Your task to perform on an android device: Search for Italian restaurants on Maps Image 0: 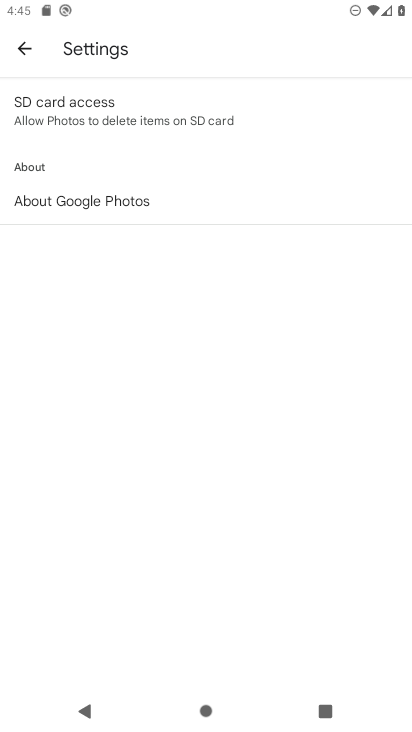
Step 0: press home button
Your task to perform on an android device: Search for Italian restaurants on Maps Image 1: 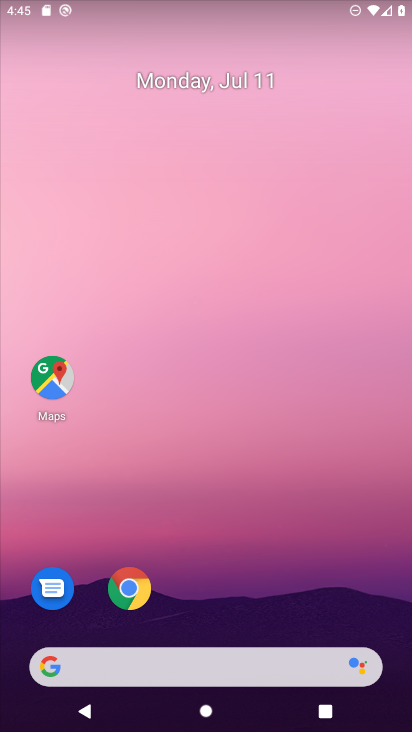
Step 1: drag from (198, 621) to (255, 24)
Your task to perform on an android device: Search for Italian restaurants on Maps Image 2: 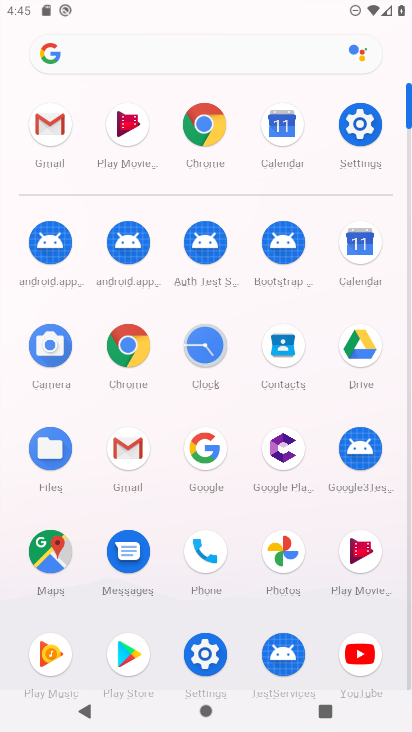
Step 2: click (47, 554)
Your task to perform on an android device: Search for Italian restaurants on Maps Image 3: 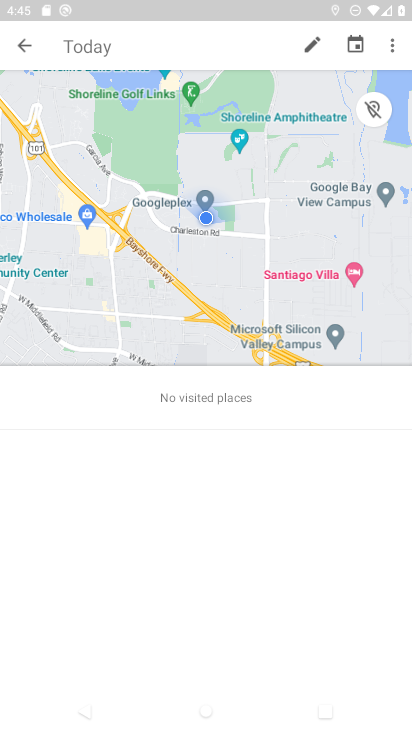
Step 3: click (161, 48)
Your task to perform on an android device: Search for Italian restaurants on Maps Image 4: 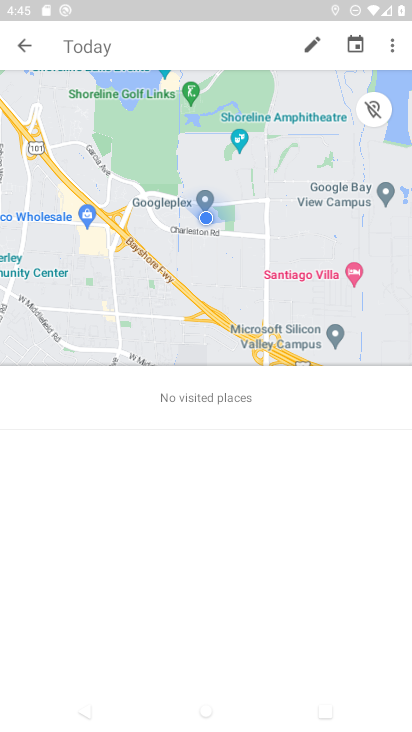
Step 4: click (128, 43)
Your task to perform on an android device: Search for Italian restaurants on Maps Image 5: 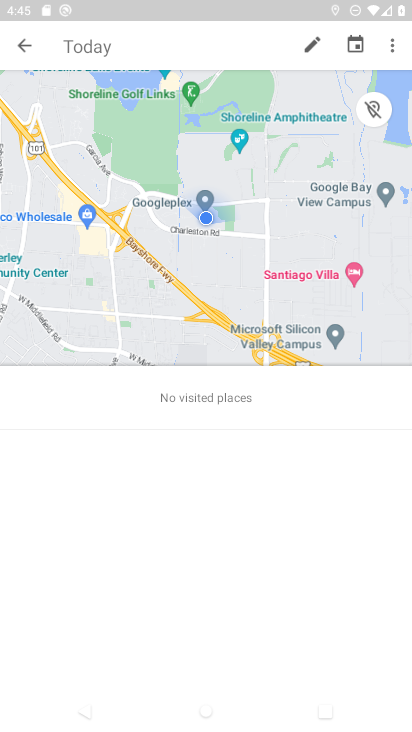
Step 5: click (113, 47)
Your task to perform on an android device: Search for Italian restaurants on Maps Image 6: 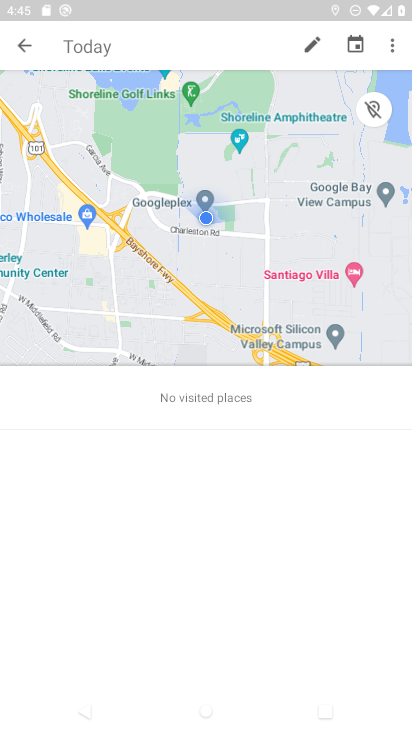
Step 6: press back button
Your task to perform on an android device: Search for Italian restaurants on Maps Image 7: 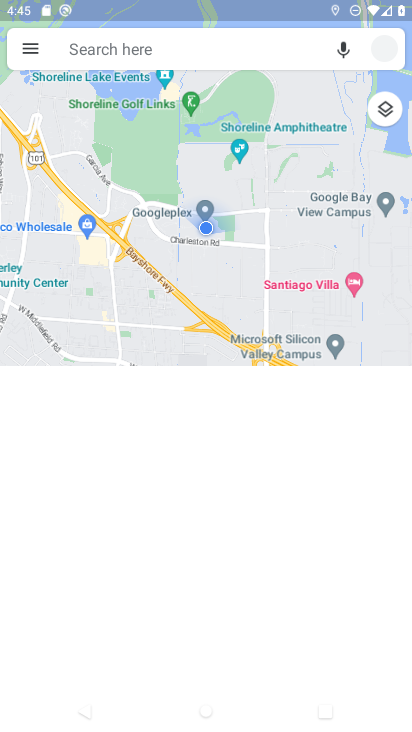
Step 7: click (125, 50)
Your task to perform on an android device: Search for Italian restaurants on Maps Image 8: 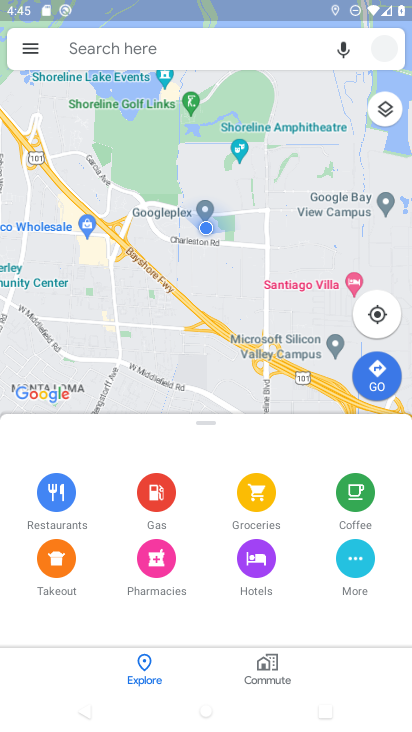
Step 8: click (123, 41)
Your task to perform on an android device: Search for Italian restaurants on Maps Image 9: 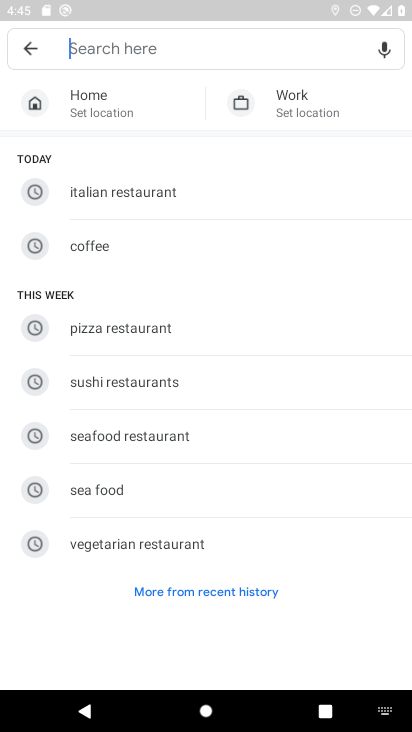
Step 9: click (109, 192)
Your task to perform on an android device: Search for Italian restaurants on Maps Image 10: 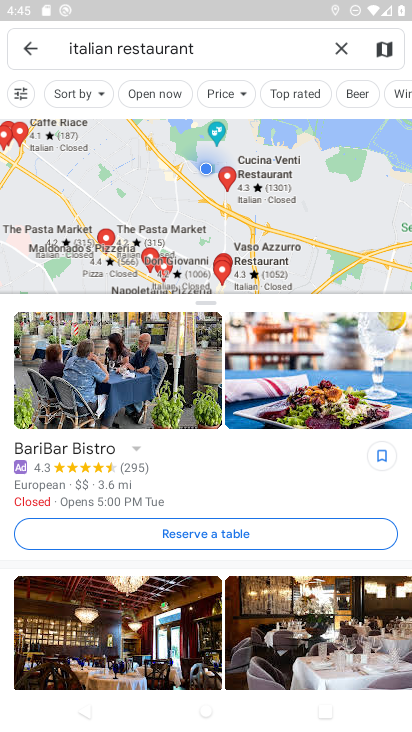
Step 10: task complete